Your task to perform on an android device: Open CNN.com Image 0: 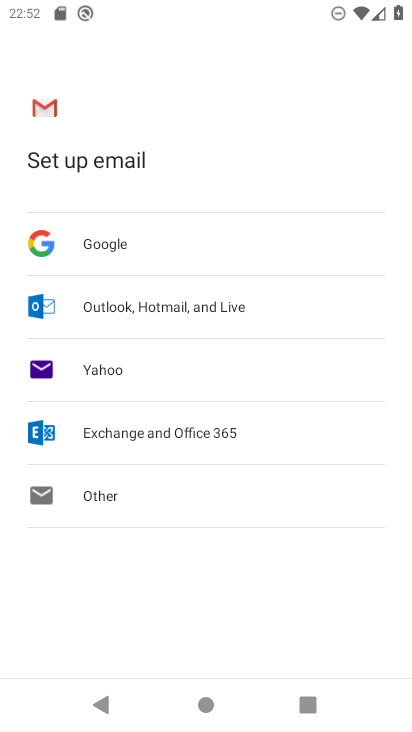
Step 0: press home button
Your task to perform on an android device: Open CNN.com Image 1: 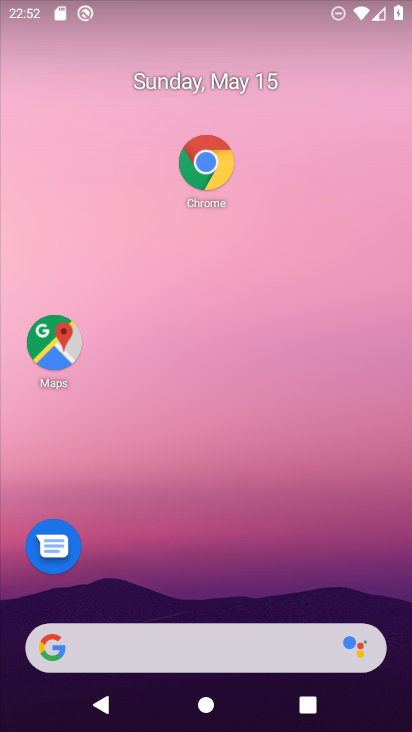
Step 1: click (201, 156)
Your task to perform on an android device: Open CNN.com Image 2: 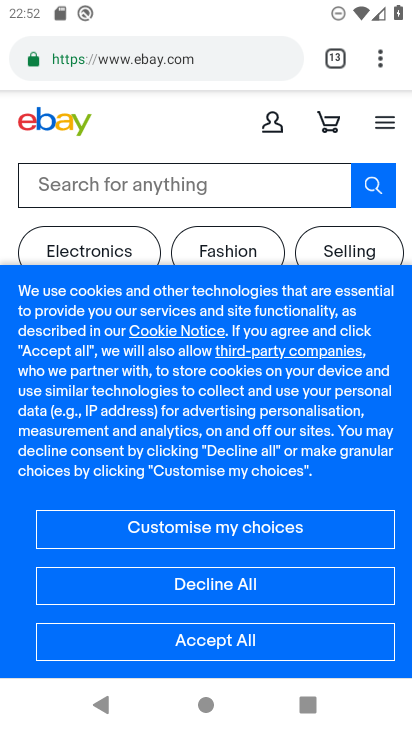
Step 2: click (376, 52)
Your task to perform on an android device: Open CNN.com Image 3: 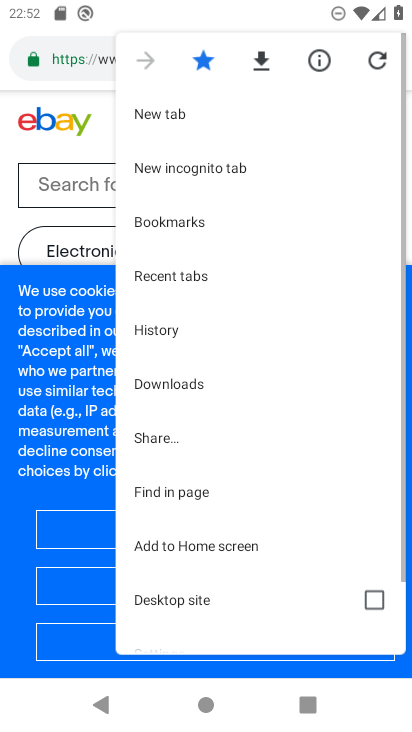
Step 3: click (197, 116)
Your task to perform on an android device: Open CNN.com Image 4: 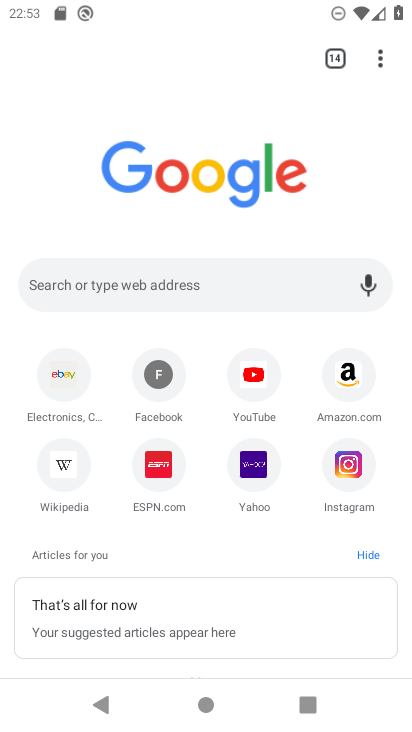
Step 4: drag from (197, 248) to (200, 292)
Your task to perform on an android device: Open CNN.com Image 5: 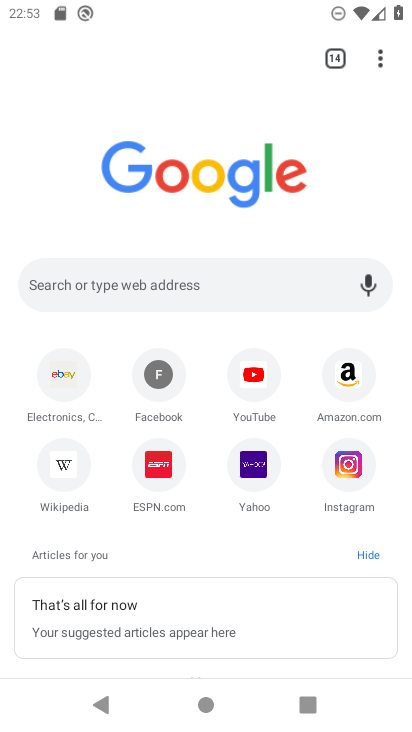
Step 5: click (201, 308)
Your task to perform on an android device: Open CNN.com Image 6: 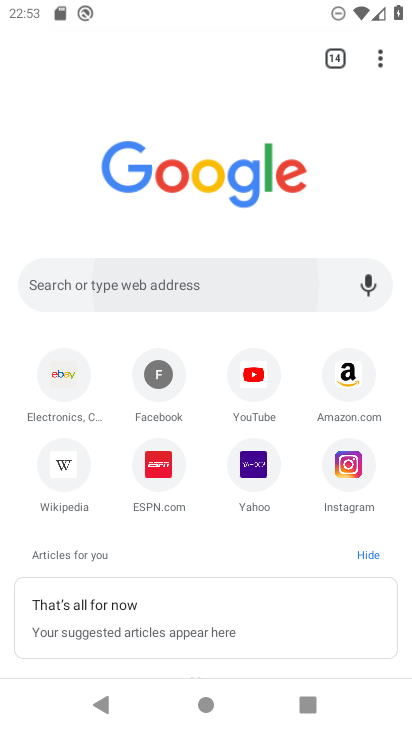
Step 6: click (212, 286)
Your task to perform on an android device: Open CNN.com Image 7: 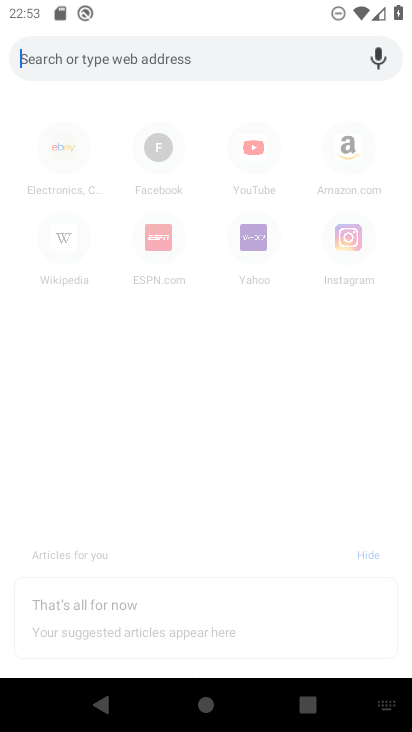
Step 7: type "CNN.com"
Your task to perform on an android device: Open CNN.com Image 8: 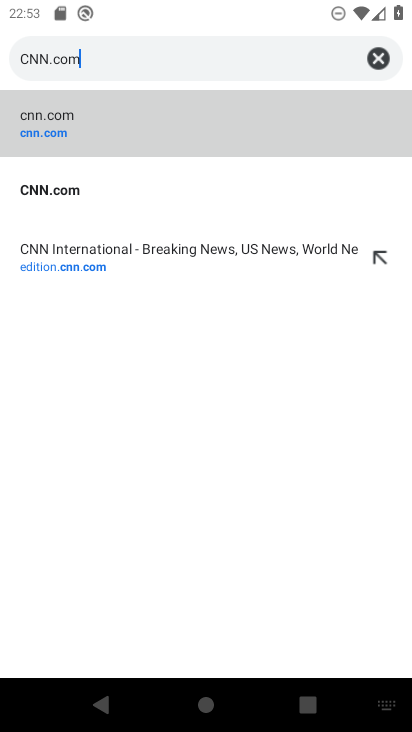
Step 8: click (201, 135)
Your task to perform on an android device: Open CNN.com Image 9: 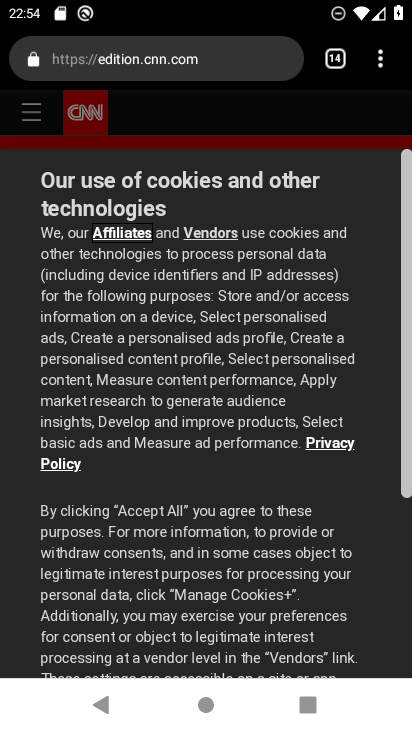
Step 9: task complete